Your task to perform on an android device: Open network settings Image 0: 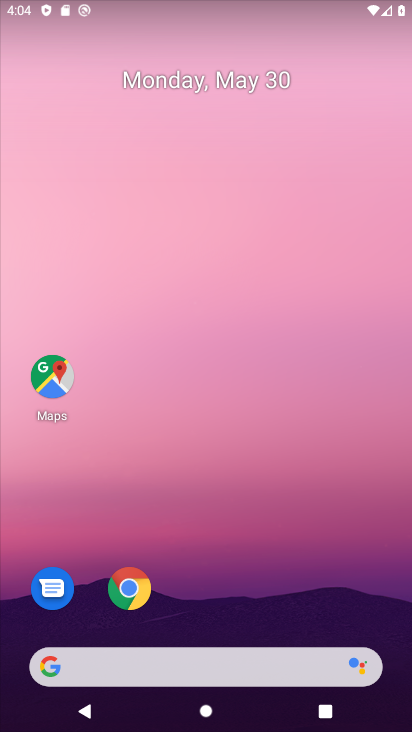
Step 0: drag from (272, 624) to (271, 398)
Your task to perform on an android device: Open network settings Image 1: 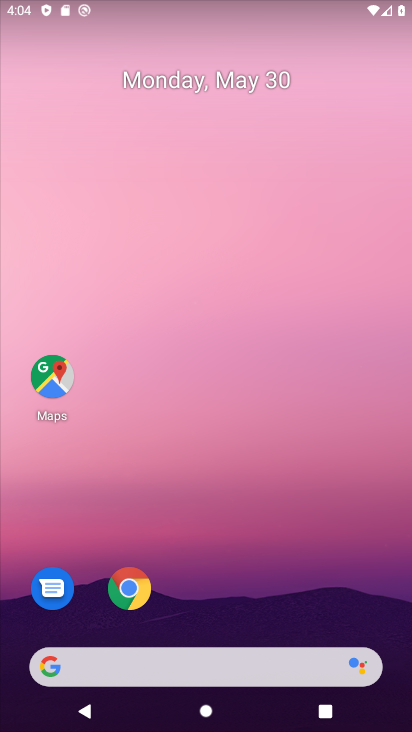
Step 1: drag from (258, 604) to (279, 355)
Your task to perform on an android device: Open network settings Image 2: 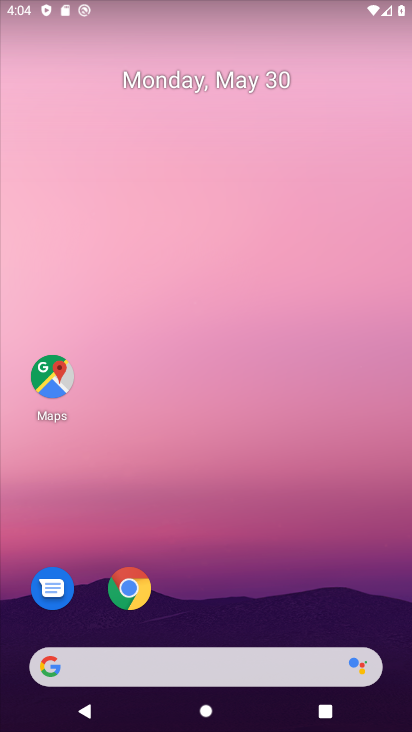
Step 2: drag from (228, 560) to (225, 102)
Your task to perform on an android device: Open network settings Image 3: 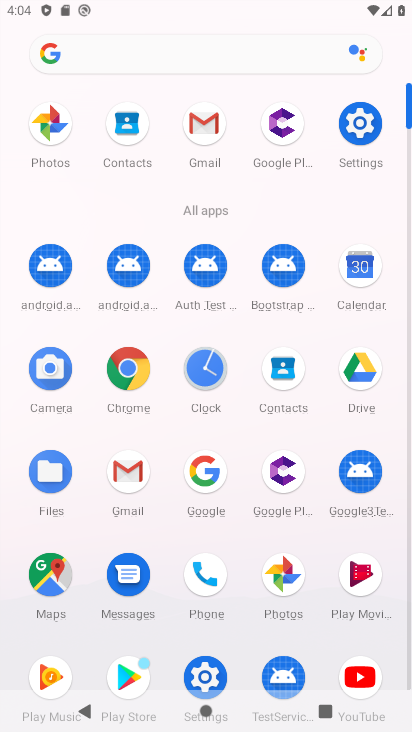
Step 3: click (359, 128)
Your task to perform on an android device: Open network settings Image 4: 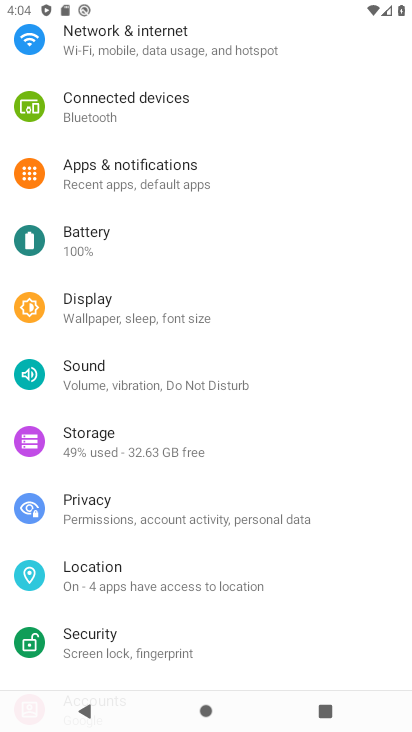
Step 4: click (178, 45)
Your task to perform on an android device: Open network settings Image 5: 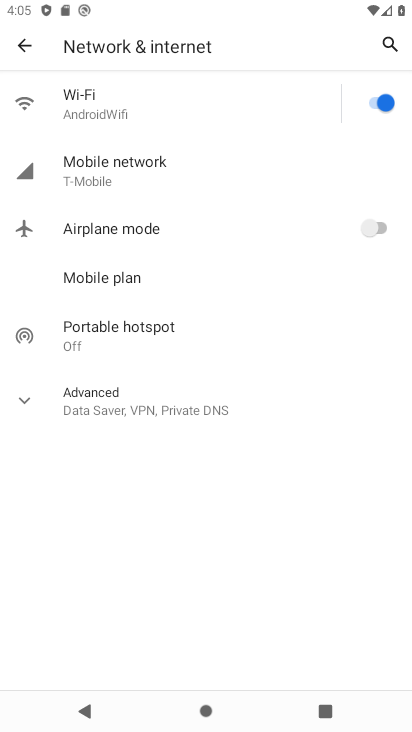
Step 5: click (158, 158)
Your task to perform on an android device: Open network settings Image 6: 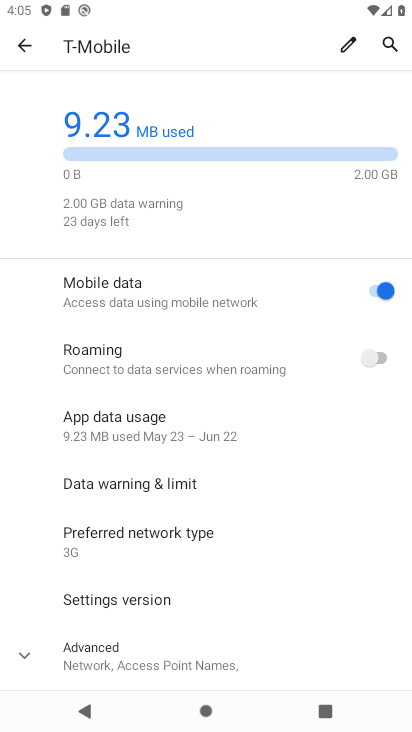
Step 6: task complete